Your task to perform on an android device: Search for hotels in Tokyo Image 0: 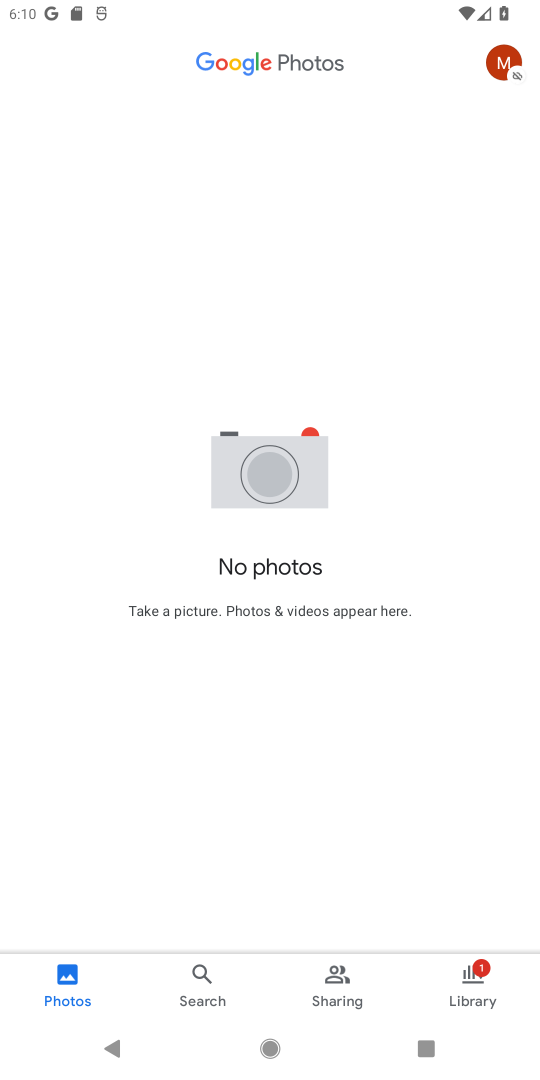
Step 0: task complete